Your task to perform on an android device: Go to Yahoo.com Image 0: 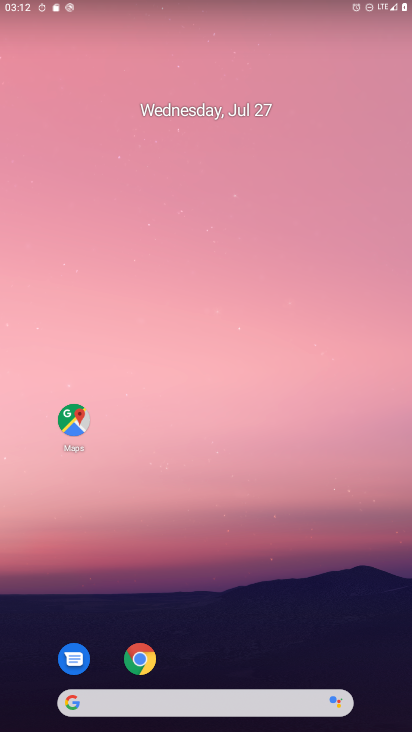
Step 0: drag from (326, 556) to (324, 14)
Your task to perform on an android device: Go to Yahoo.com Image 1: 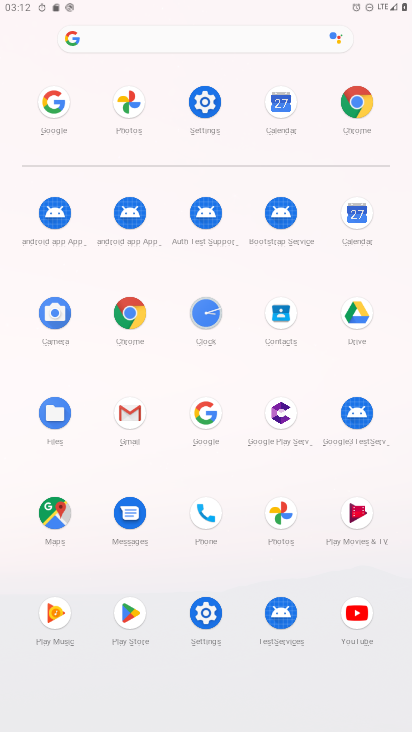
Step 1: click (354, 95)
Your task to perform on an android device: Go to Yahoo.com Image 2: 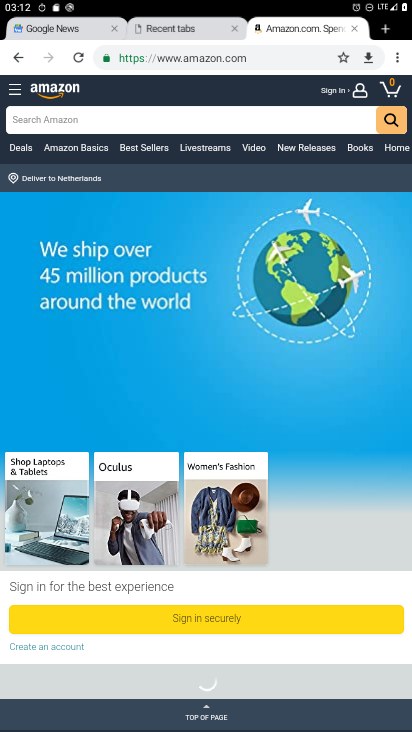
Step 2: click (154, 55)
Your task to perform on an android device: Go to Yahoo.com Image 3: 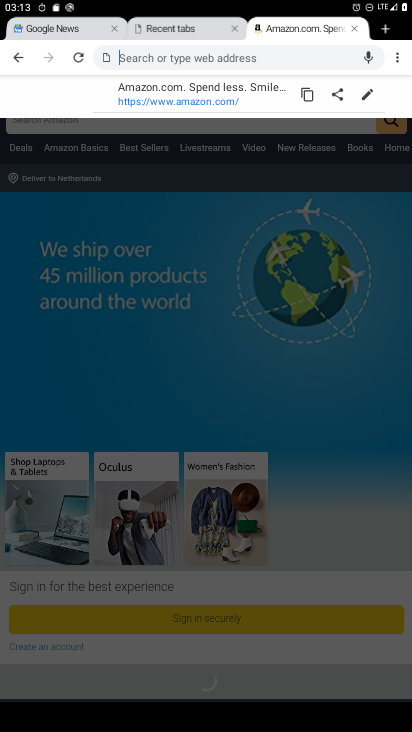
Step 3: type "yahoo.com"
Your task to perform on an android device: Go to Yahoo.com Image 4: 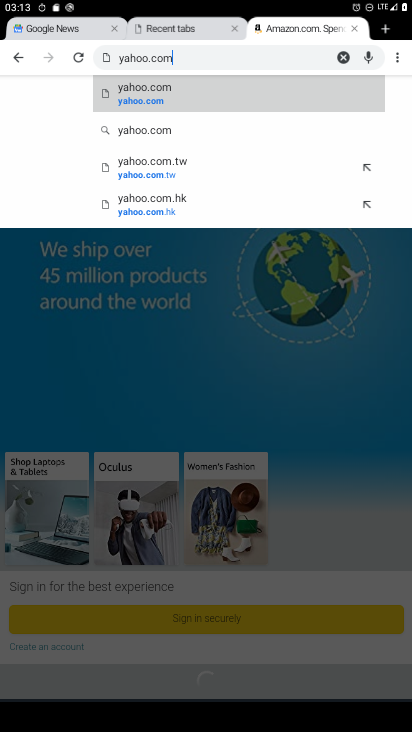
Step 4: click (161, 89)
Your task to perform on an android device: Go to Yahoo.com Image 5: 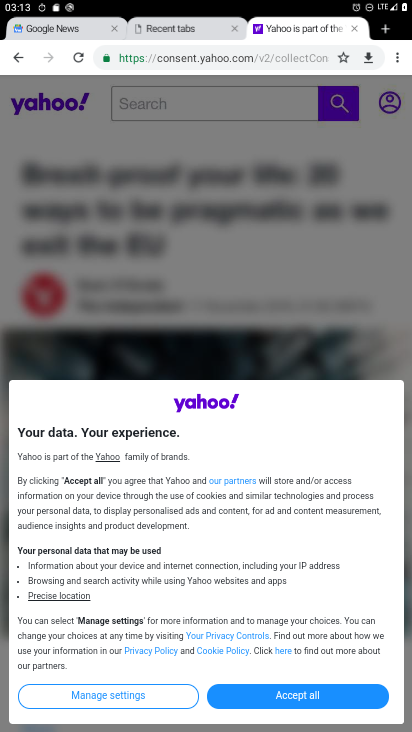
Step 5: task complete